Your task to perform on an android device: Search for usb-a on newegg.com, select the first entry, add it to the cart, then select checkout. Image 0: 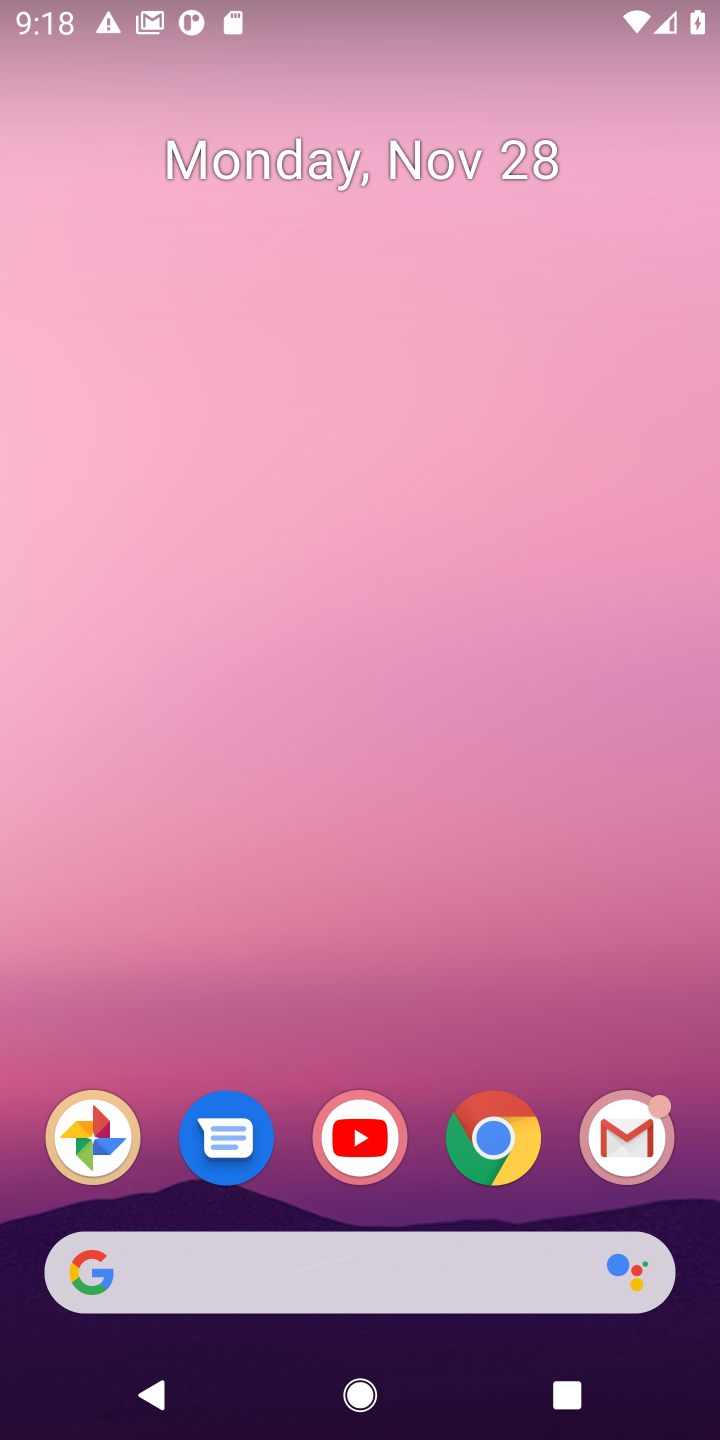
Step 0: click (488, 1147)
Your task to perform on an android device: Search for usb-a on newegg.com, select the first entry, add it to the cart, then select checkout. Image 1: 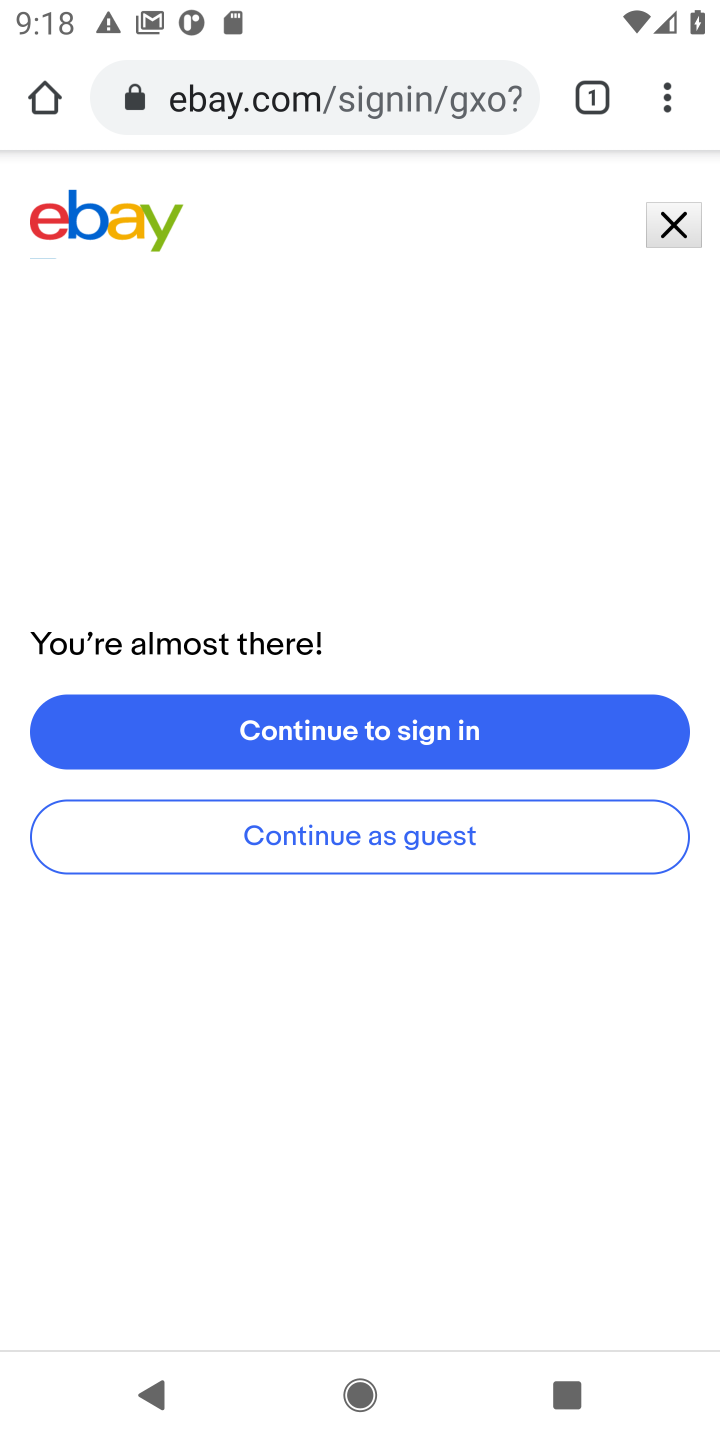
Step 1: click (285, 97)
Your task to perform on an android device: Search for usb-a on newegg.com, select the first entry, add it to the cart, then select checkout. Image 2: 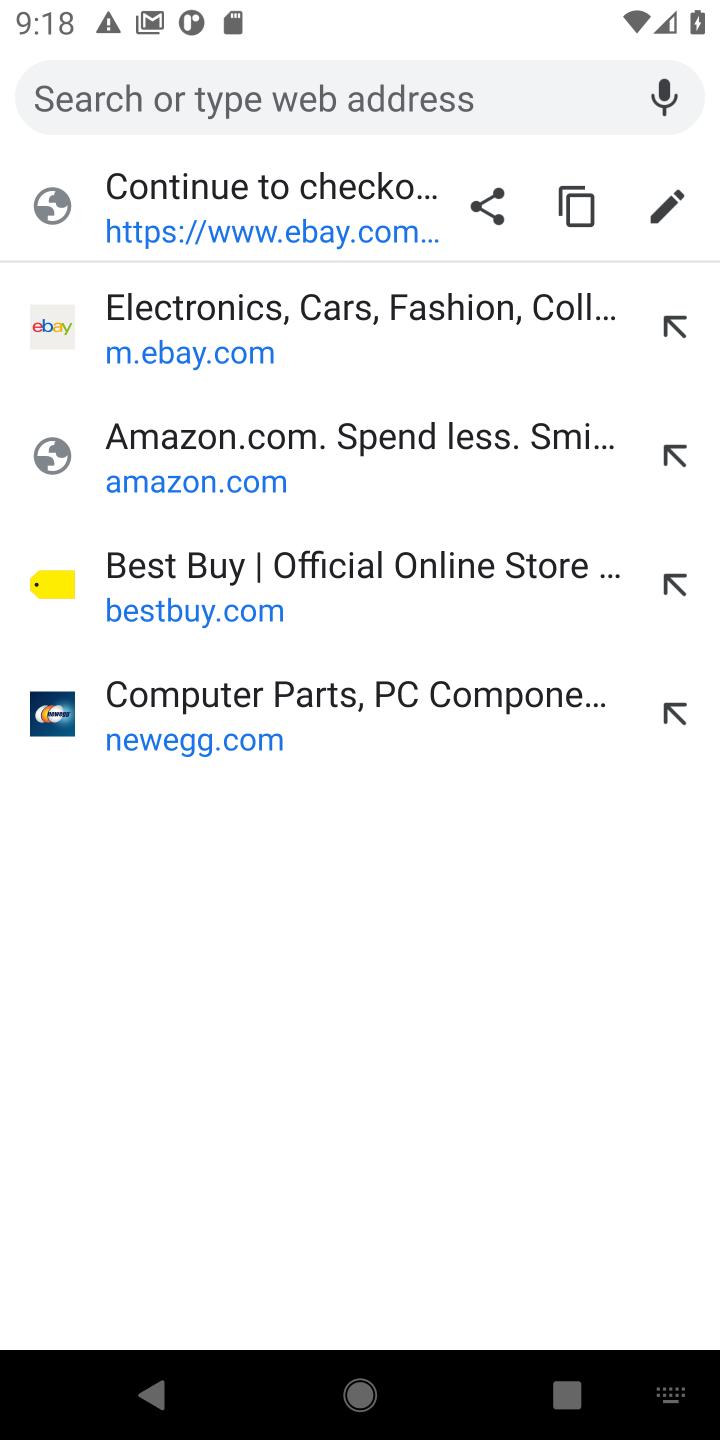
Step 2: click (193, 717)
Your task to perform on an android device: Search for usb-a on newegg.com, select the first entry, add it to the cart, then select checkout. Image 3: 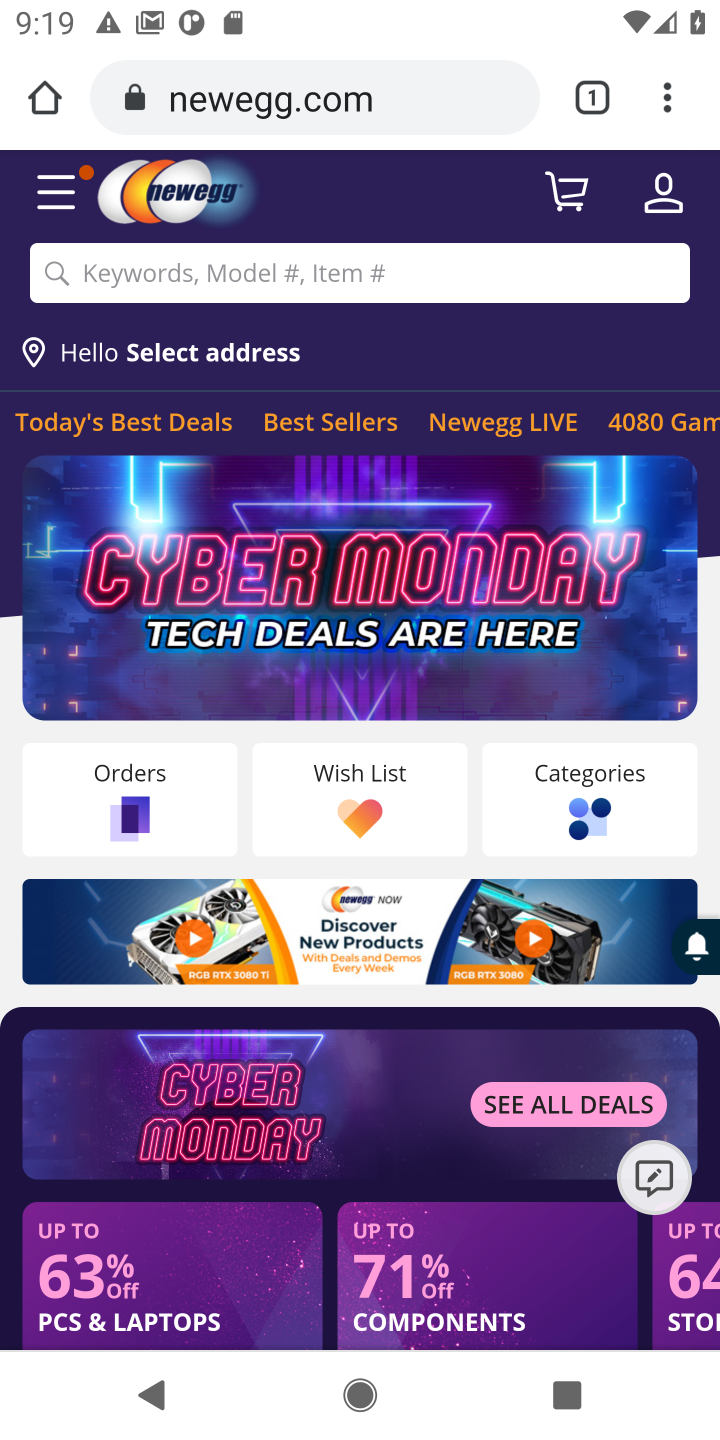
Step 3: click (147, 269)
Your task to perform on an android device: Search for usb-a on newegg.com, select the first entry, add it to the cart, then select checkout. Image 4: 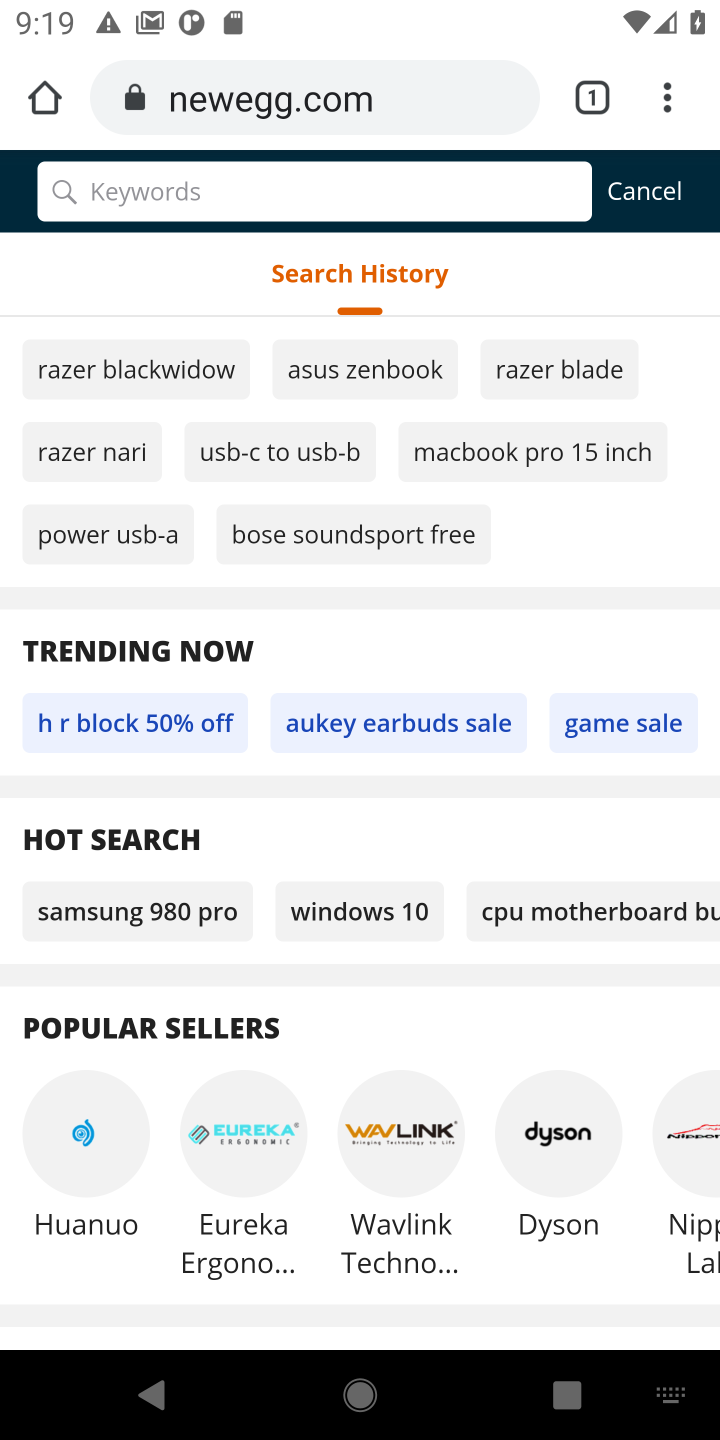
Step 4: type "usb-a"
Your task to perform on an android device: Search for usb-a on newegg.com, select the first entry, add it to the cart, then select checkout. Image 5: 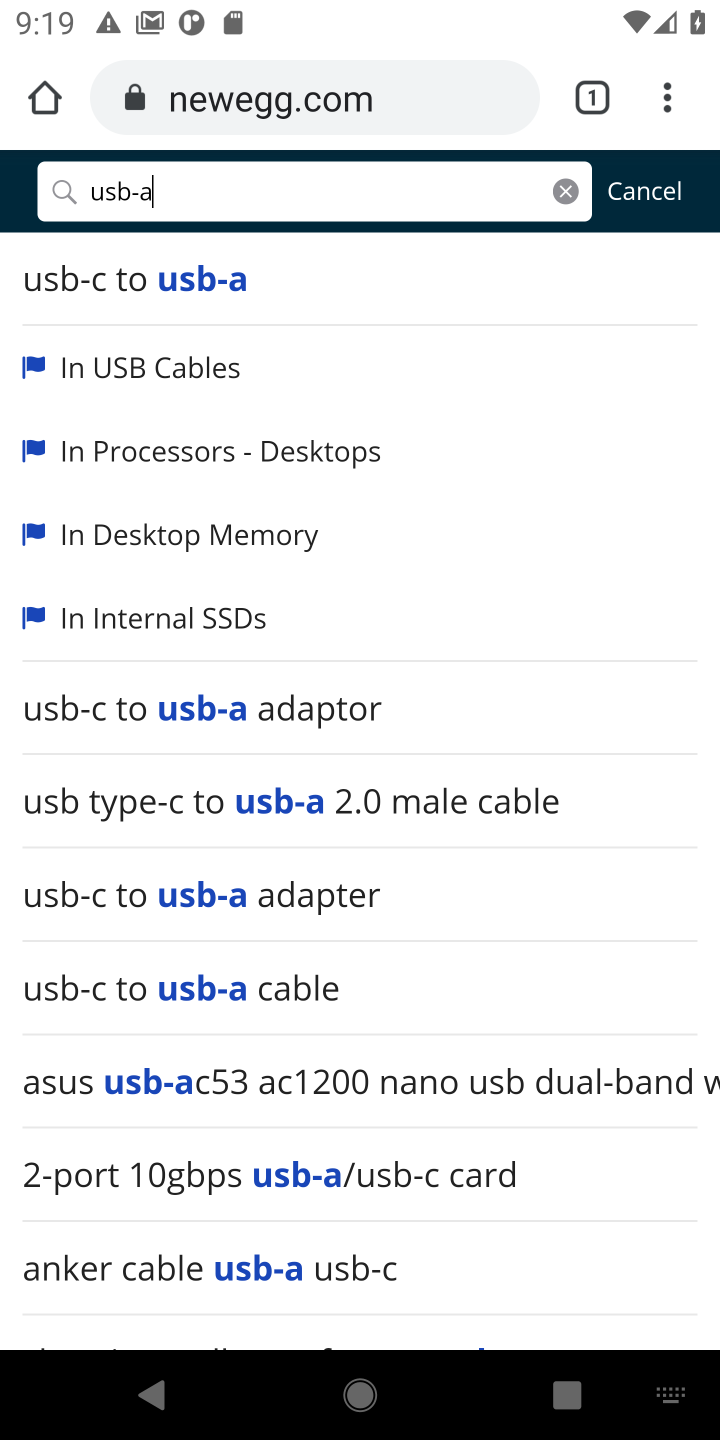
Step 5: drag from (590, 1207) to (598, 462)
Your task to perform on an android device: Search for usb-a on newegg.com, select the first entry, add it to the cart, then select checkout. Image 6: 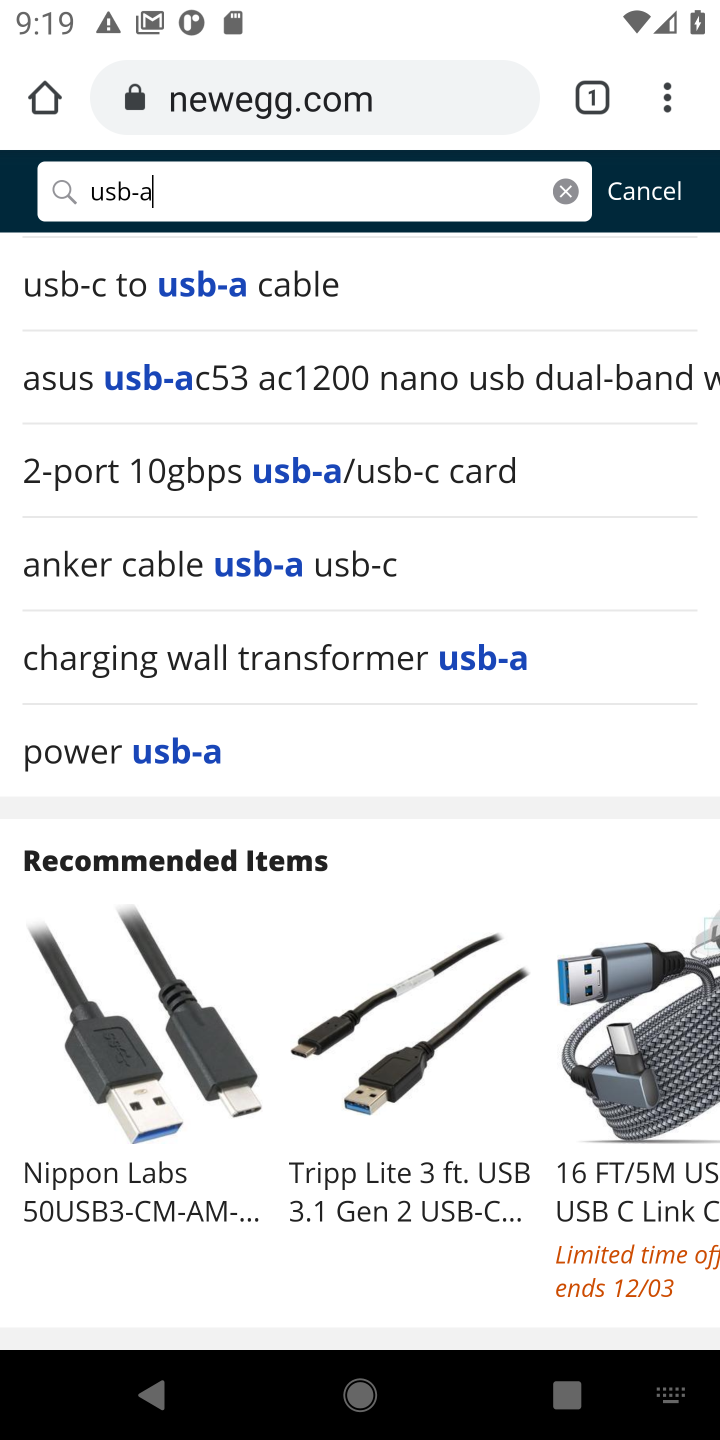
Step 6: click (113, 760)
Your task to perform on an android device: Search for usb-a on newegg.com, select the first entry, add it to the cart, then select checkout. Image 7: 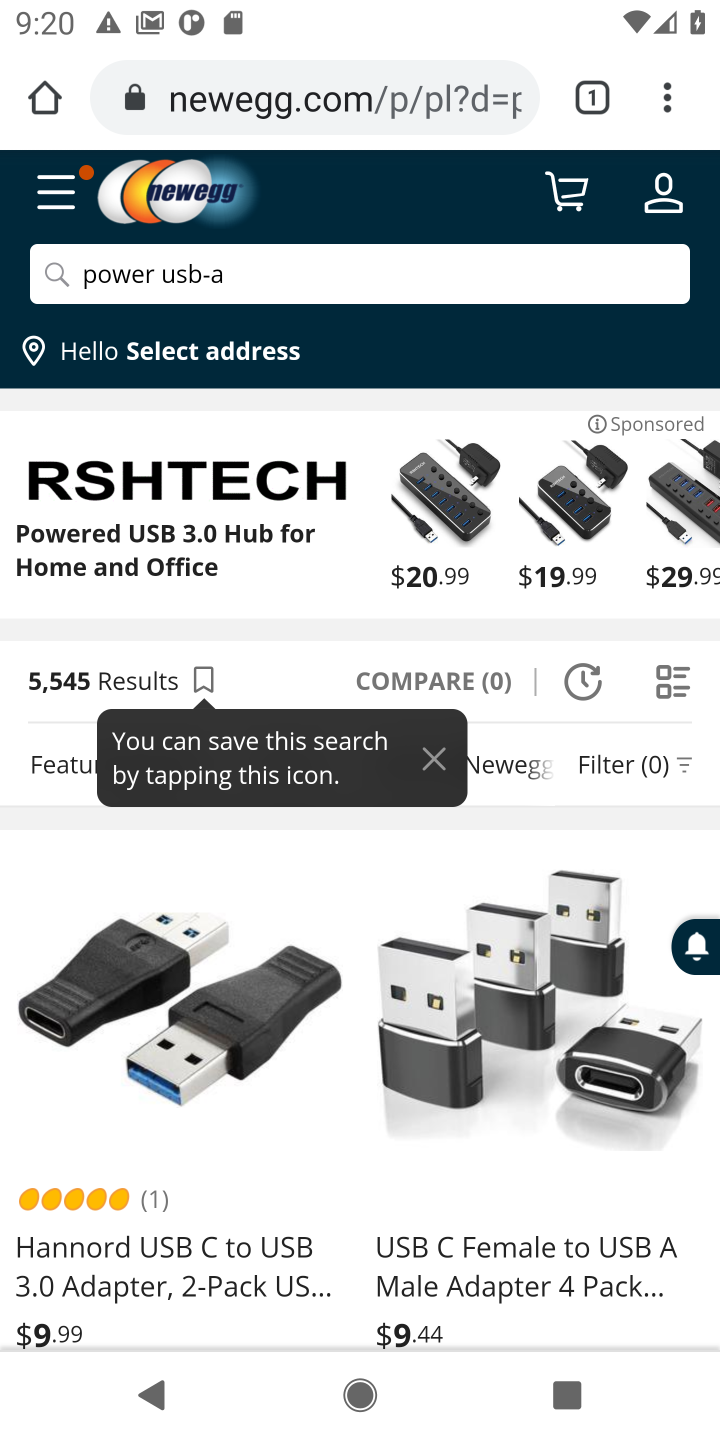
Step 7: drag from (356, 1047) to (376, 715)
Your task to perform on an android device: Search for usb-a on newegg.com, select the first entry, add it to the cart, then select checkout. Image 8: 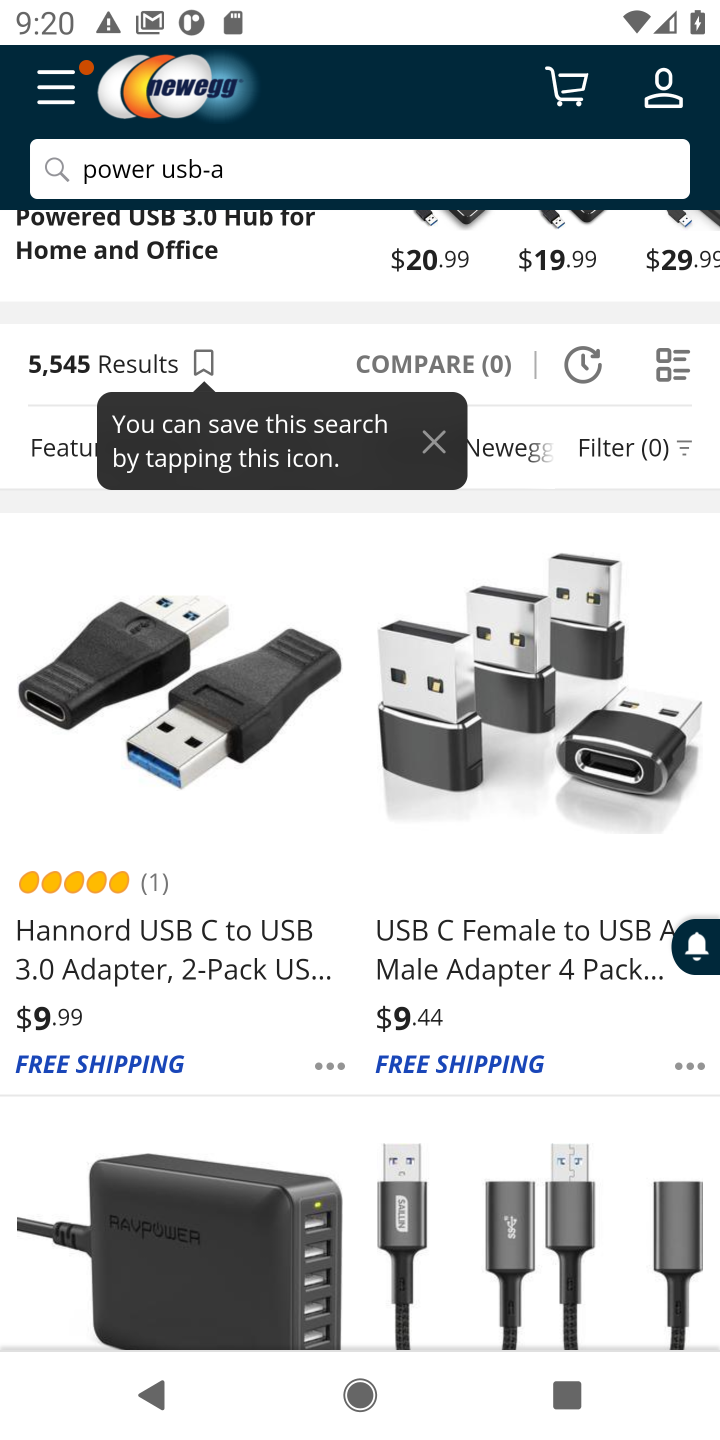
Step 8: click (238, 732)
Your task to perform on an android device: Search for usb-a on newegg.com, select the first entry, add it to the cart, then select checkout. Image 9: 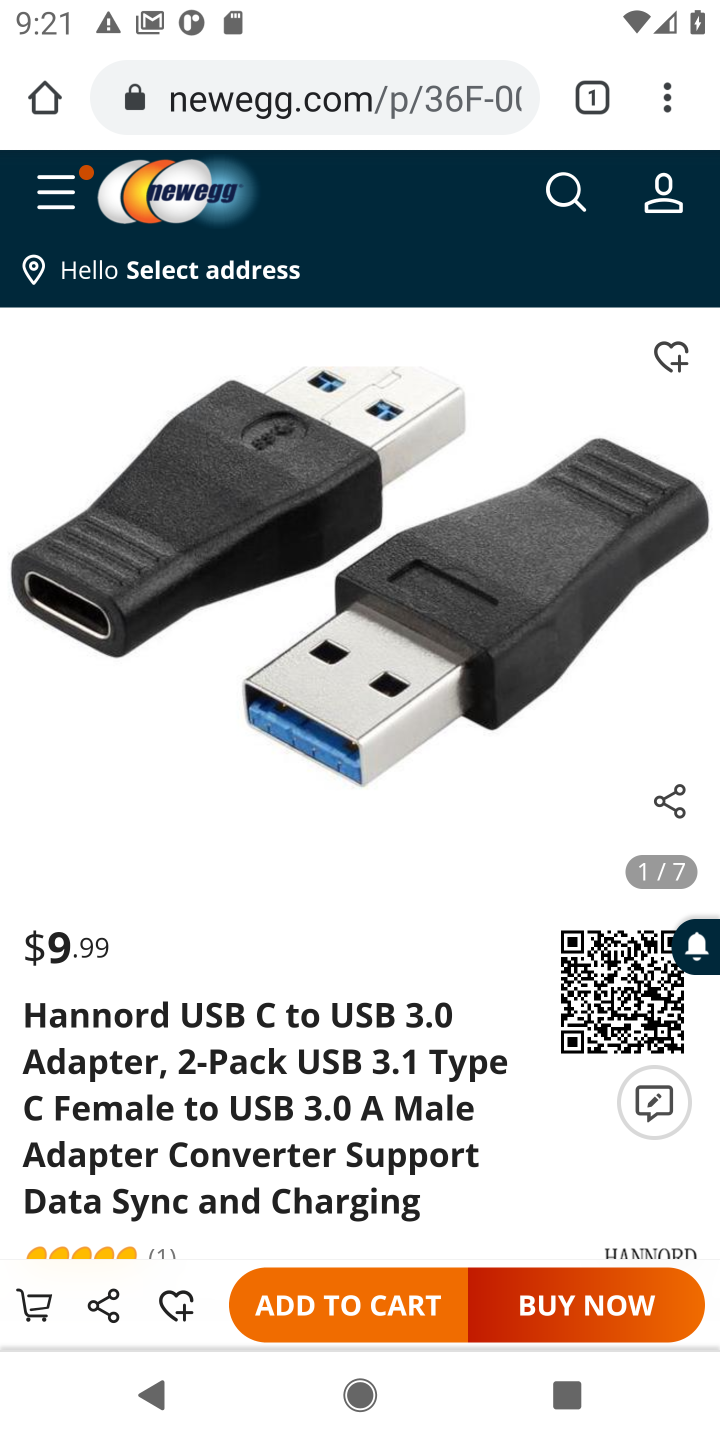
Step 9: click (338, 1300)
Your task to perform on an android device: Search for usb-a on newegg.com, select the first entry, add it to the cart, then select checkout. Image 10: 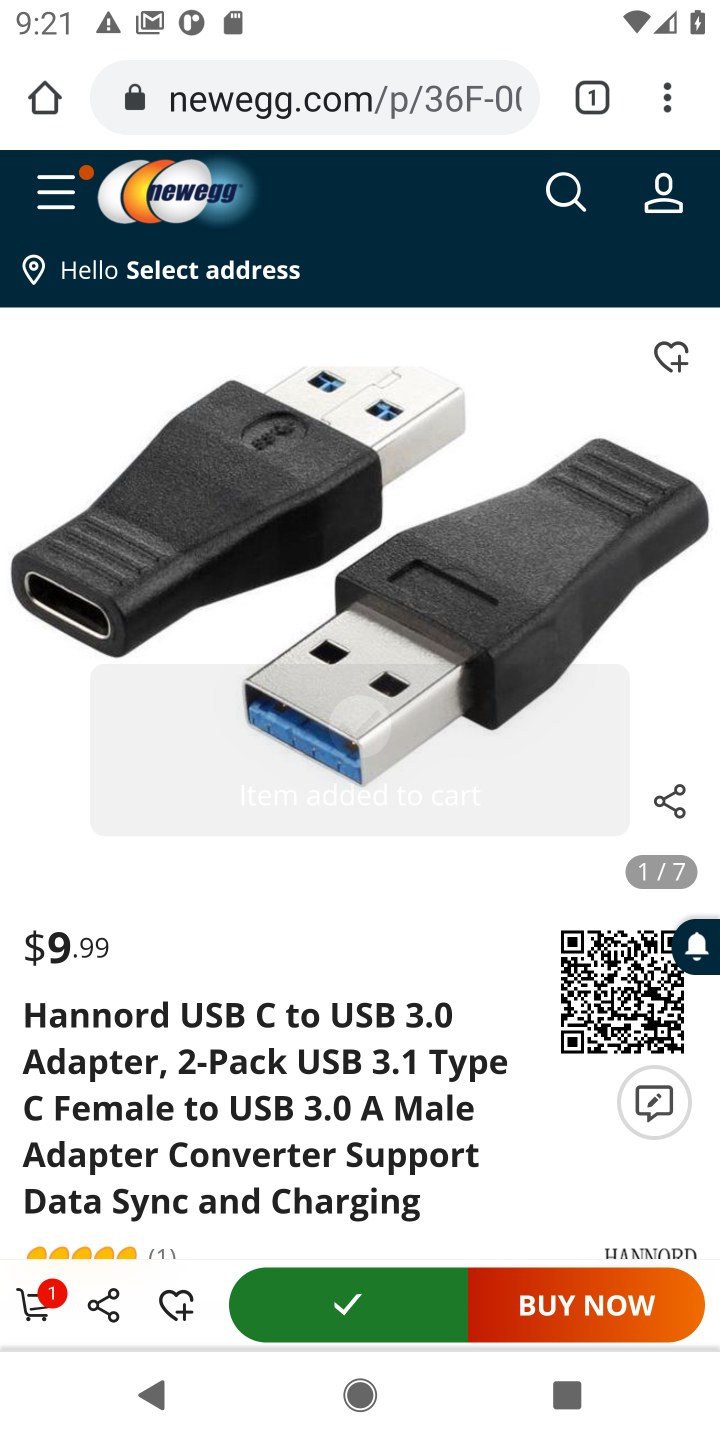
Step 10: click (30, 1293)
Your task to perform on an android device: Search for usb-a on newegg.com, select the first entry, add it to the cart, then select checkout. Image 11: 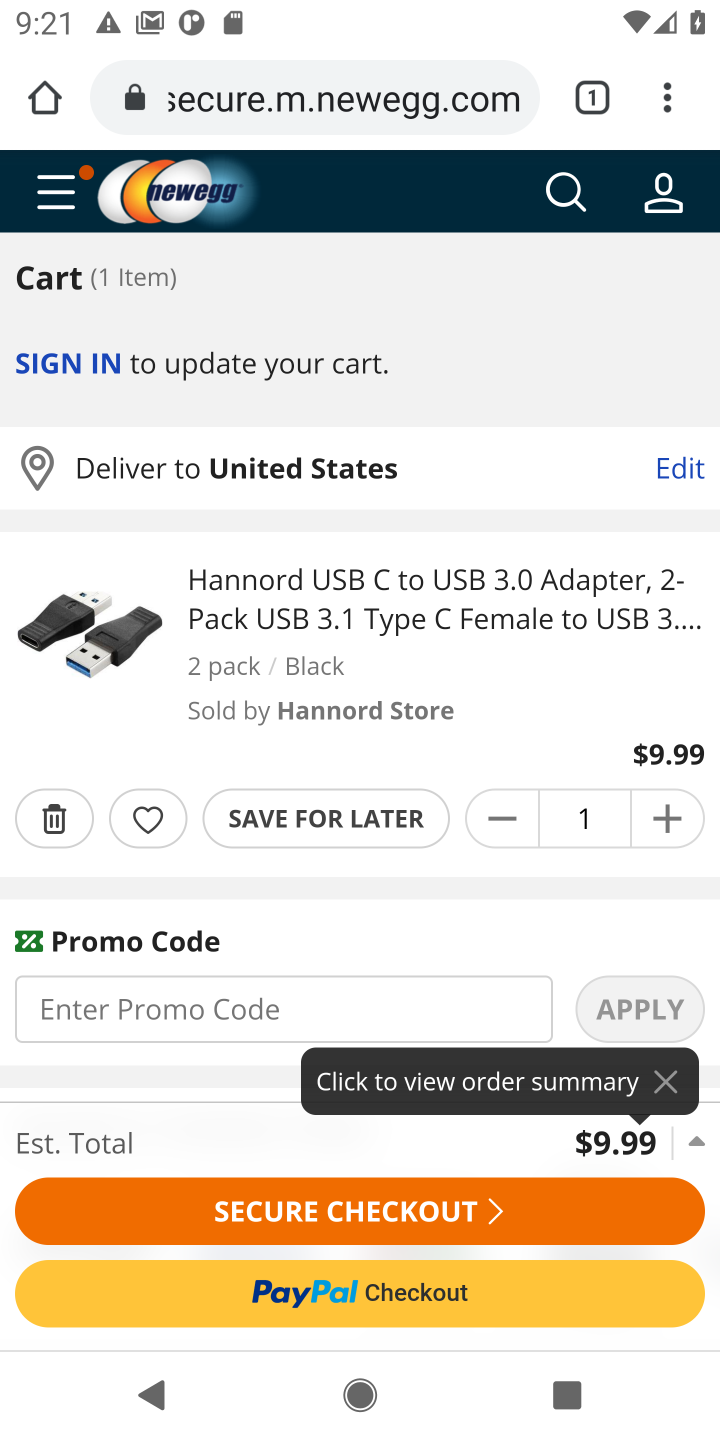
Step 11: click (331, 1191)
Your task to perform on an android device: Search for usb-a on newegg.com, select the first entry, add it to the cart, then select checkout. Image 12: 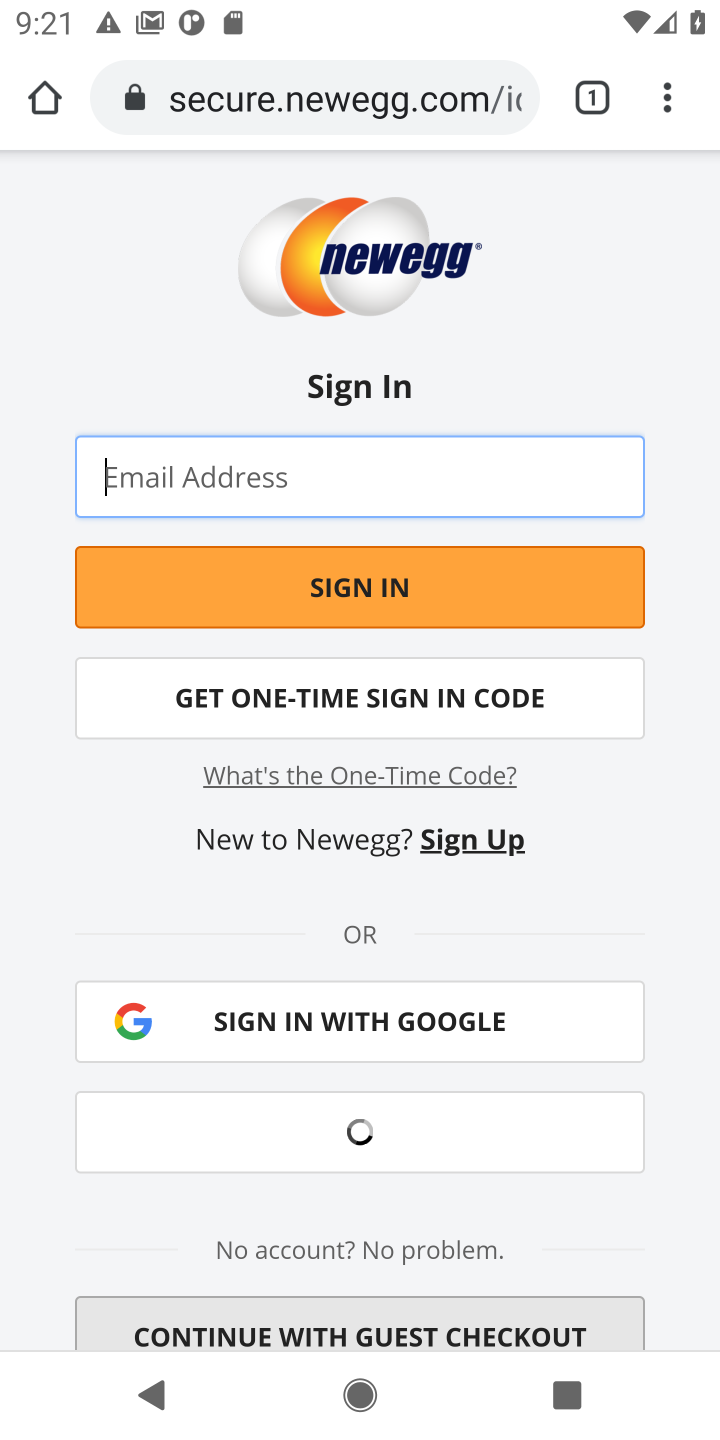
Step 12: task complete